Your task to perform on an android device: open wifi settings Image 0: 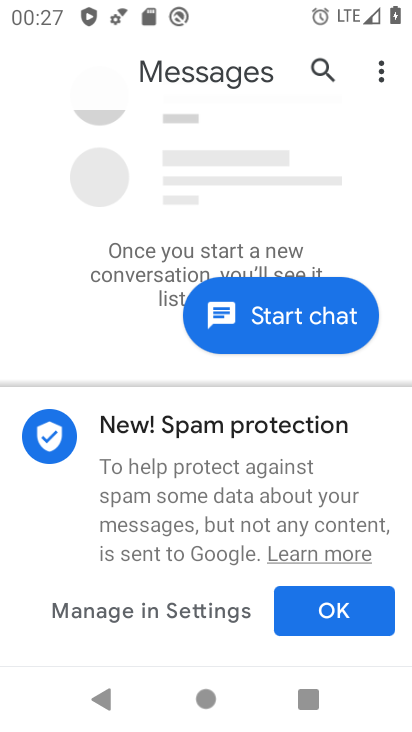
Step 0: press home button
Your task to perform on an android device: open wifi settings Image 1: 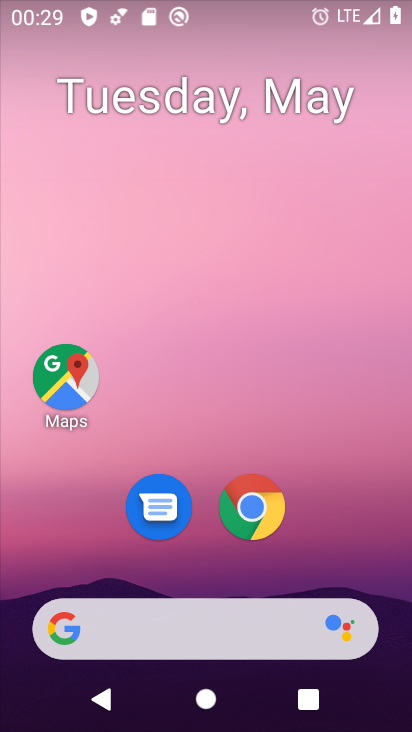
Step 1: drag from (225, 578) to (317, 16)
Your task to perform on an android device: open wifi settings Image 2: 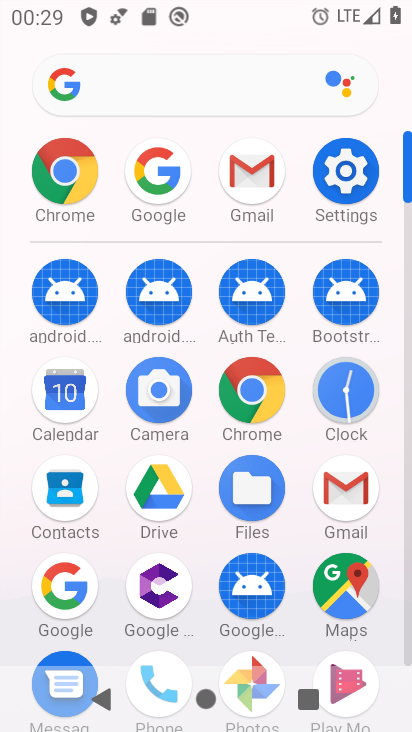
Step 2: click (354, 168)
Your task to perform on an android device: open wifi settings Image 3: 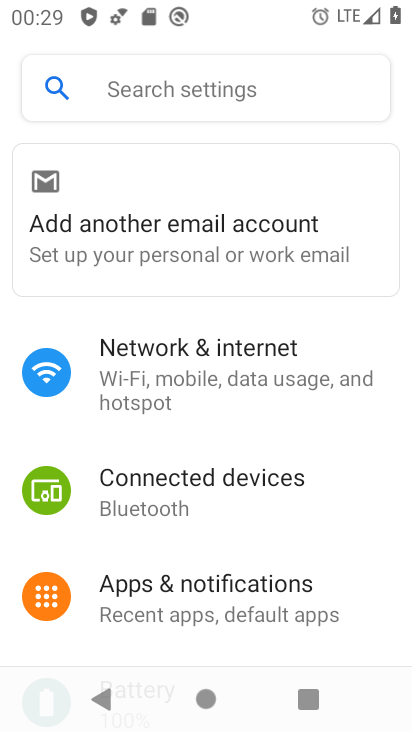
Step 3: click (217, 374)
Your task to perform on an android device: open wifi settings Image 4: 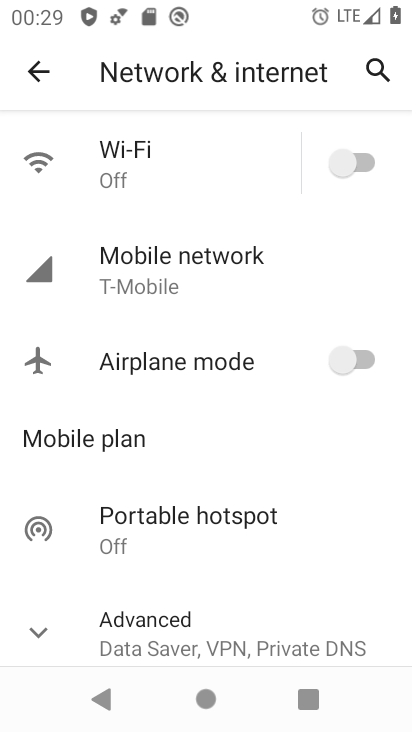
Step 4: click (131, 149)
Your task to perform on an android device: open wifi settings Image 5: 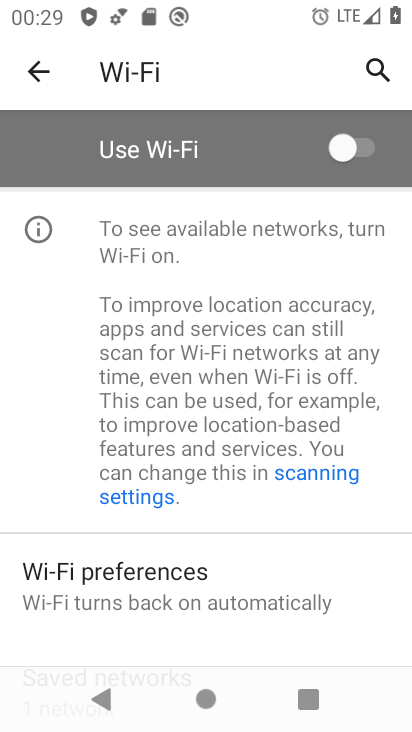
Step 5: click (30, 71)
Your task to perform on an android device: open wifi settings Image 6: 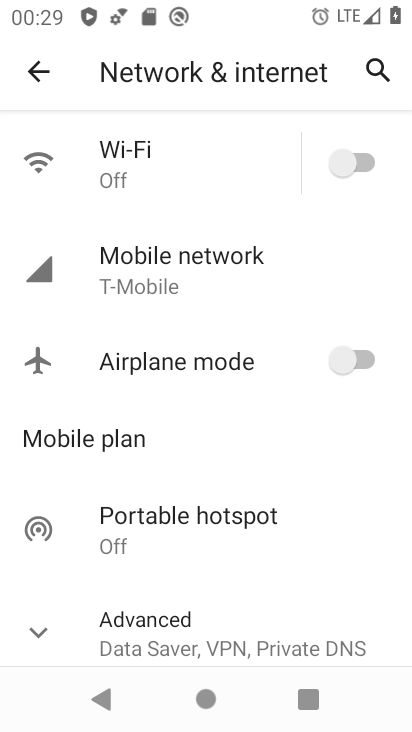
Step 6: click (124, 159)
Your task to perform on an android device: open wifi settings Image 7: 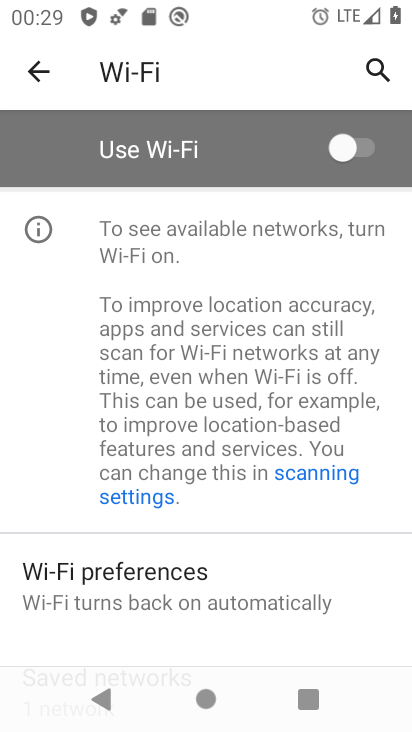
Step 7: click (370, 151)
Your task to perform on an android device: open wifi settings Image 8: 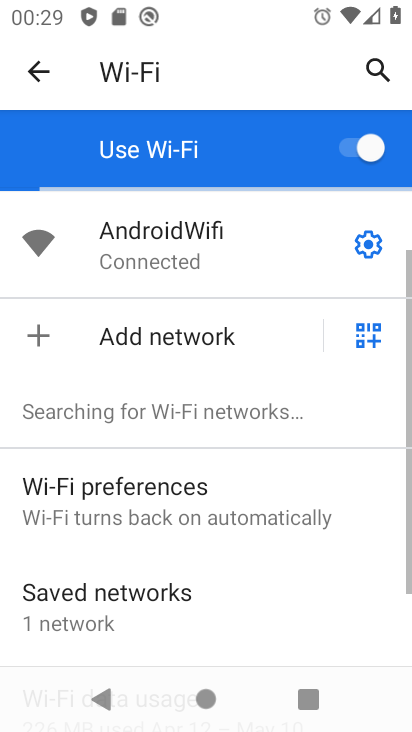
Step 8: click (357, 252)
Your task to perform on an android device: open wifi settings Image 9: 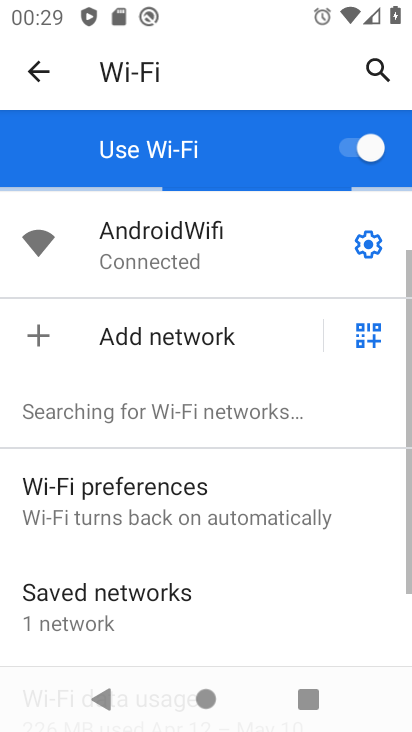
Step 9: click (367, 254)
Your task to perform on an android device: open wifi settings Image 10: 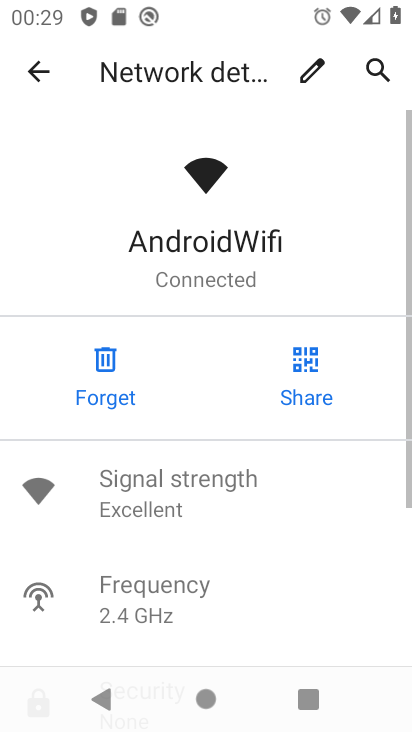
Step 10: task complete